Your task to perform on an android device: turn off notifications settings in the gmail app Image 0: 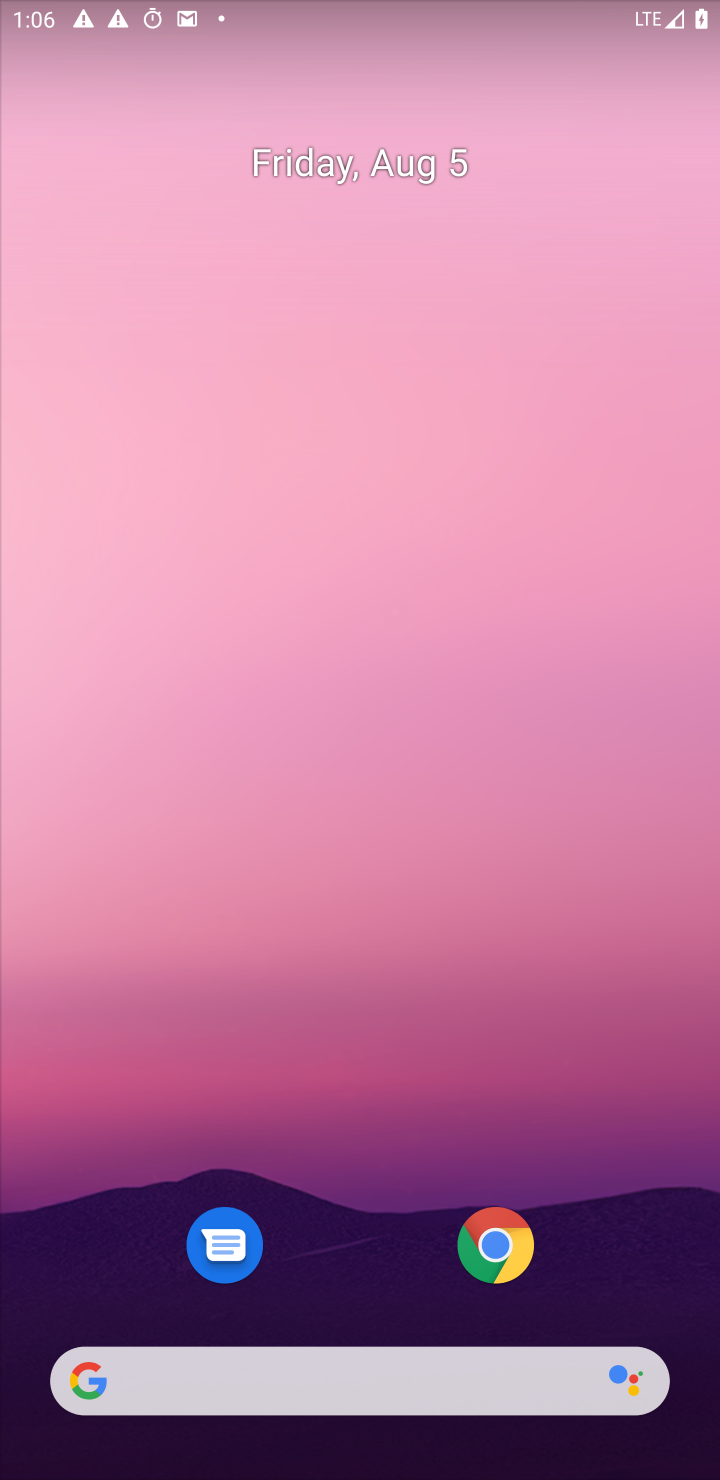
Step 0: drag from (295, 879) to (433, 294)
Your task to perform on an android device: turn off notifications settings in the gmail app Image 1: 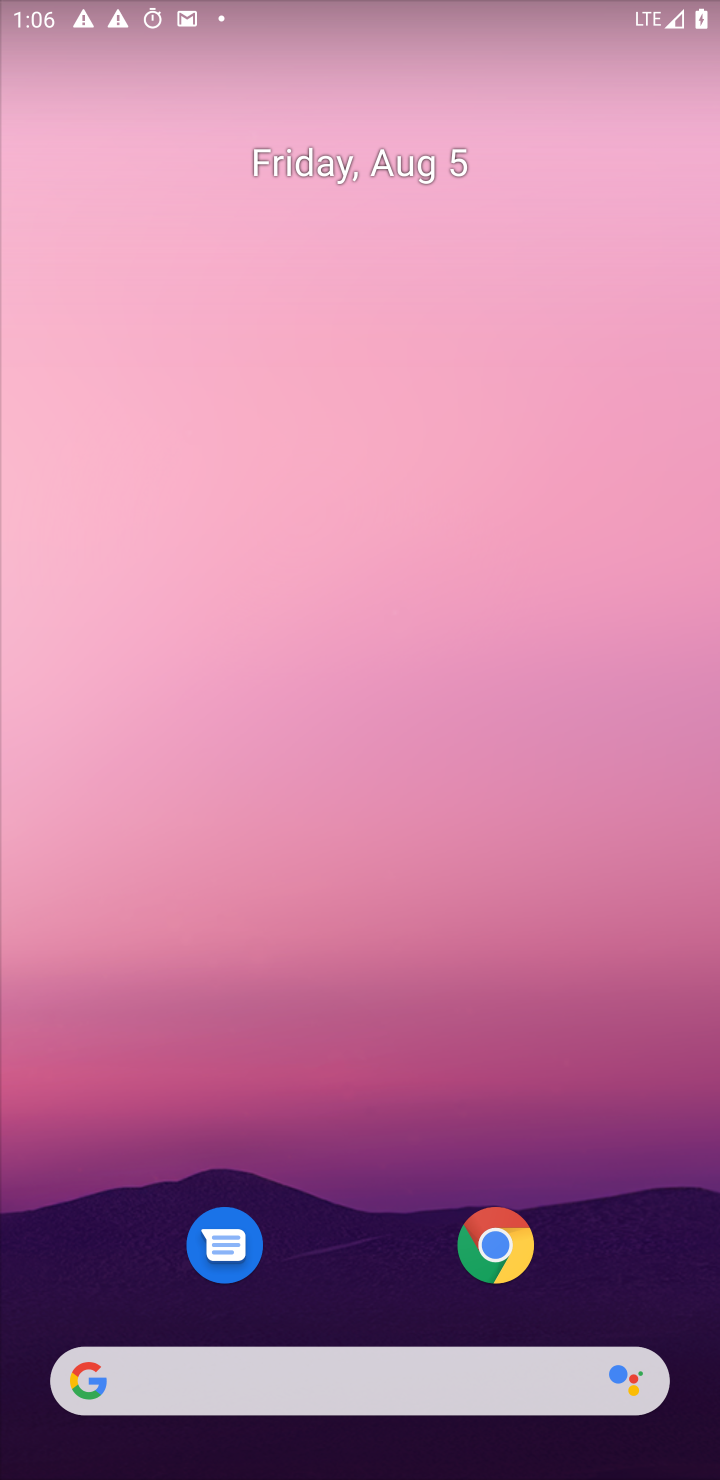
Step 1: drag from (339, 1263) to (416, 225)
Your task to perform on an android device: turn off notifications settings in the gmail app Image 2: 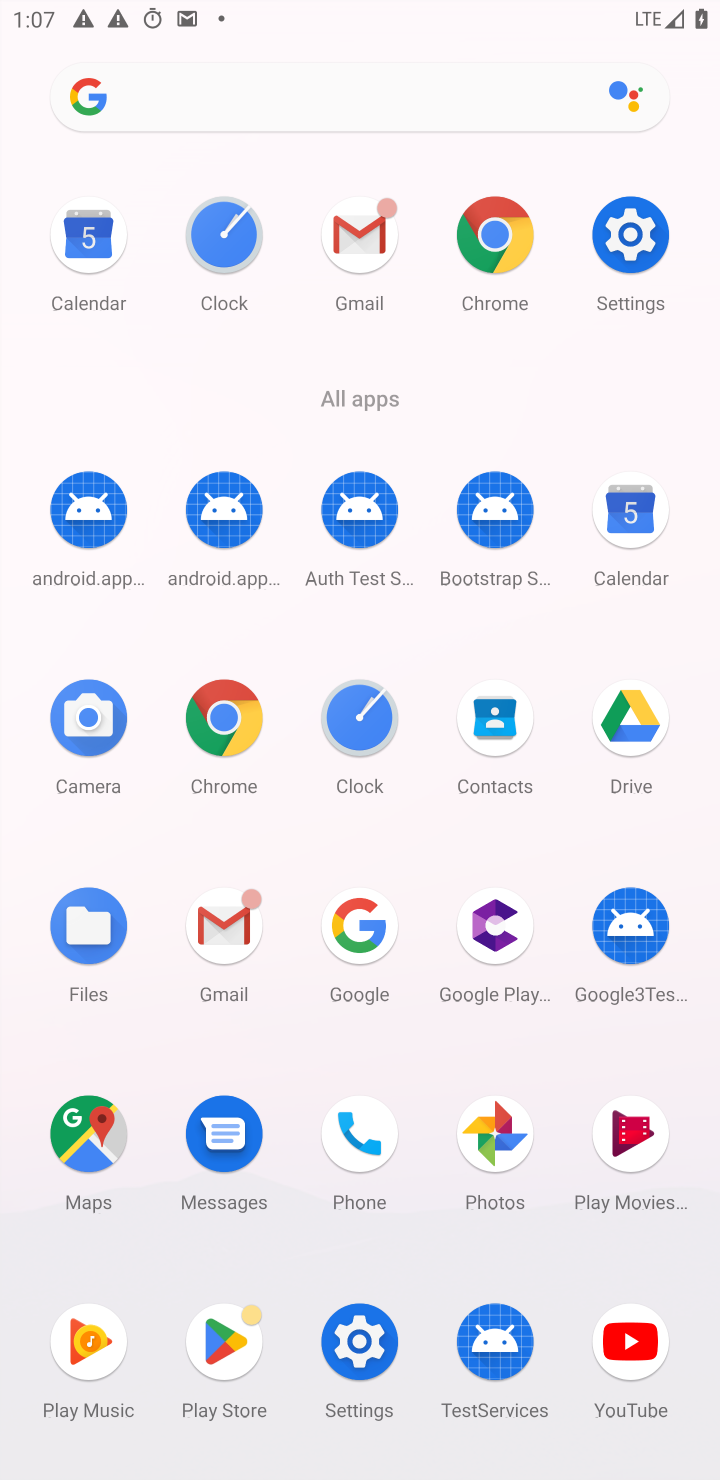
Step 2: click (356, 251)
Your task to perform on an android device: turn off notifications settings in the gmail app Image 3: 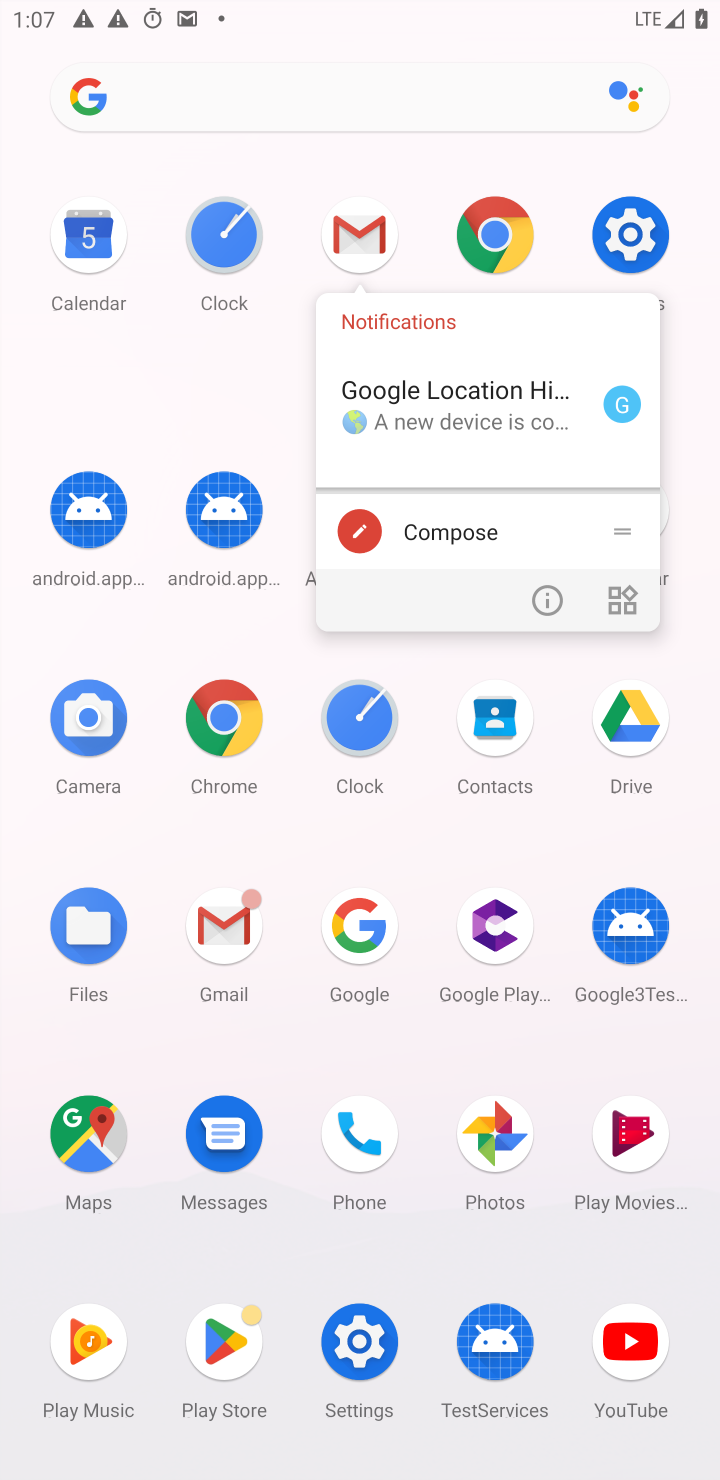
Step 3: click (367, 239)
Your task to perform on an android device: turn off notifications settings in the gmail app Image 4: 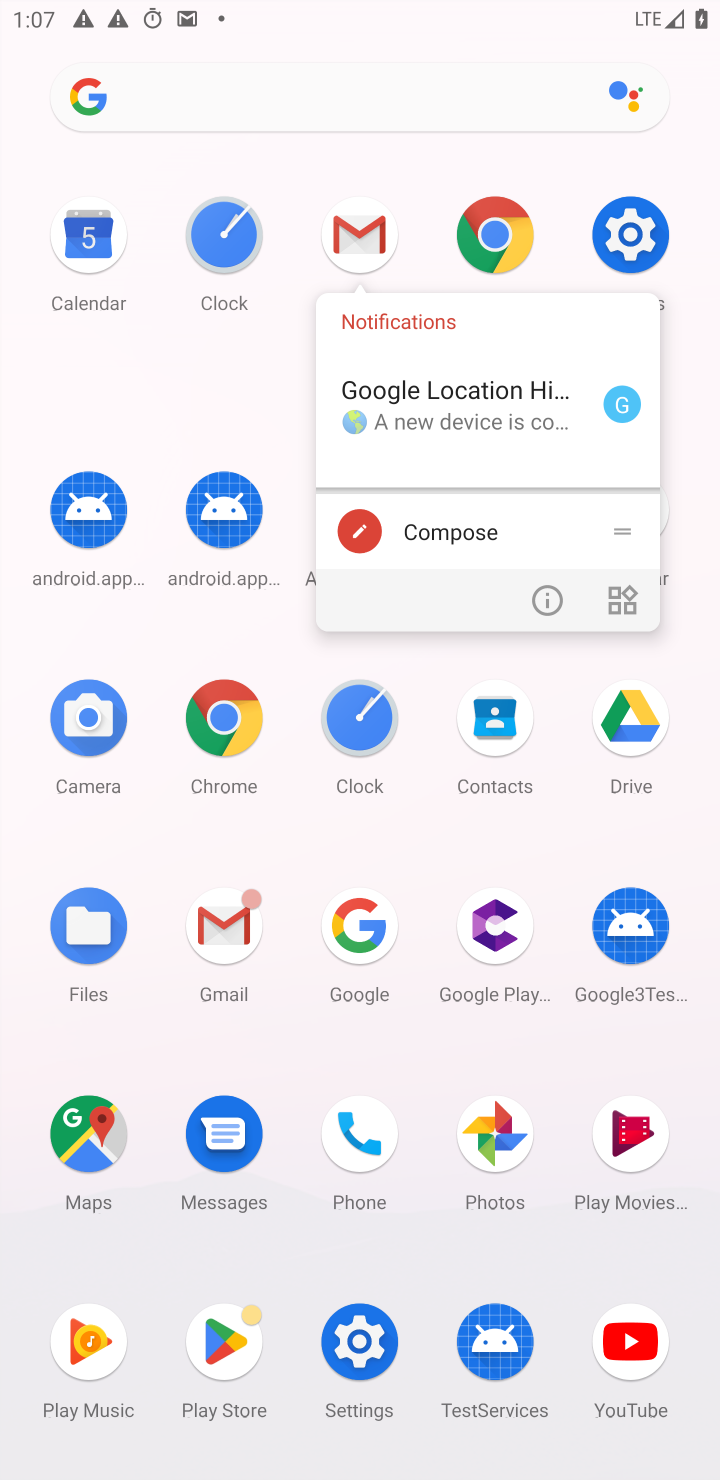
Step 4: click (367, 239)
Your task to perform on an android device: turn off notifications settings in the gmail app Image 5: 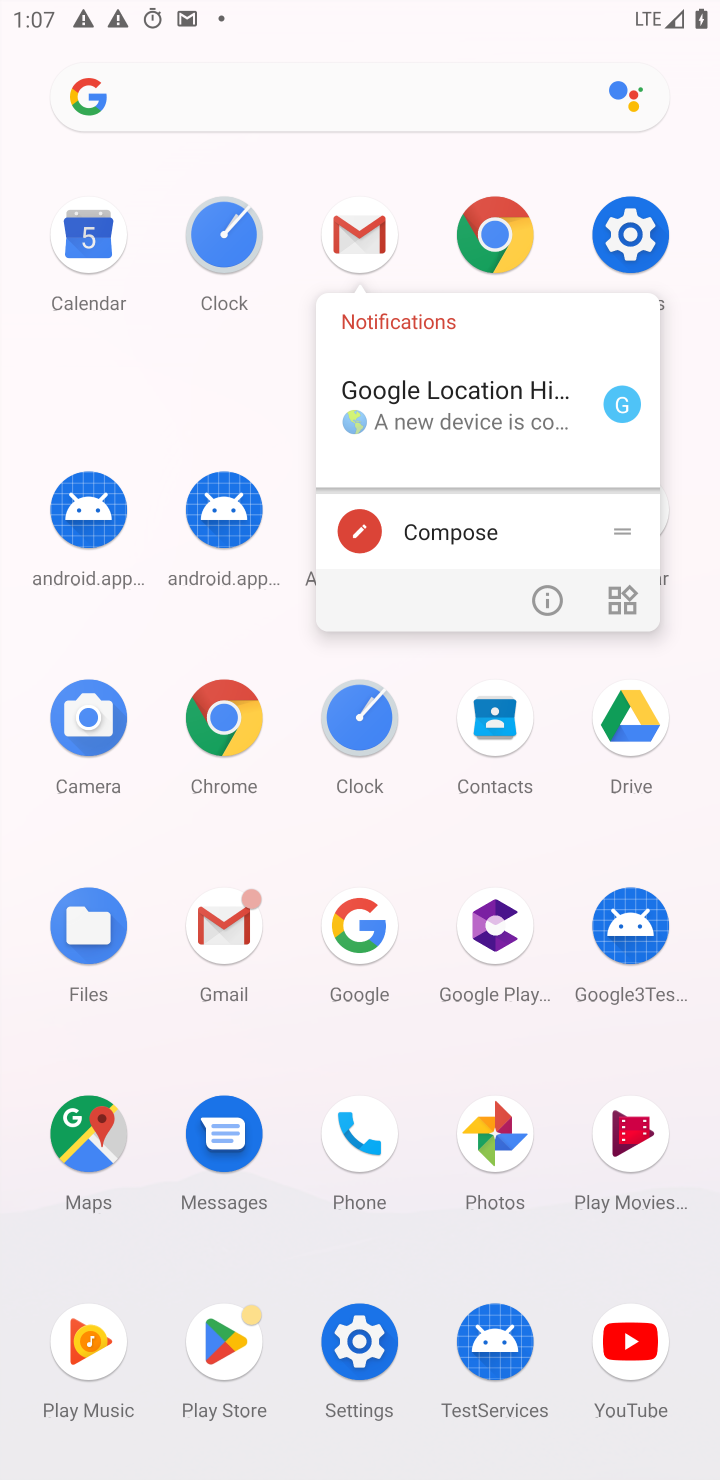
Step 5: click (367, 213)
Your task to perform on an android device: turn off notifications settings in the gmail app Image 6: 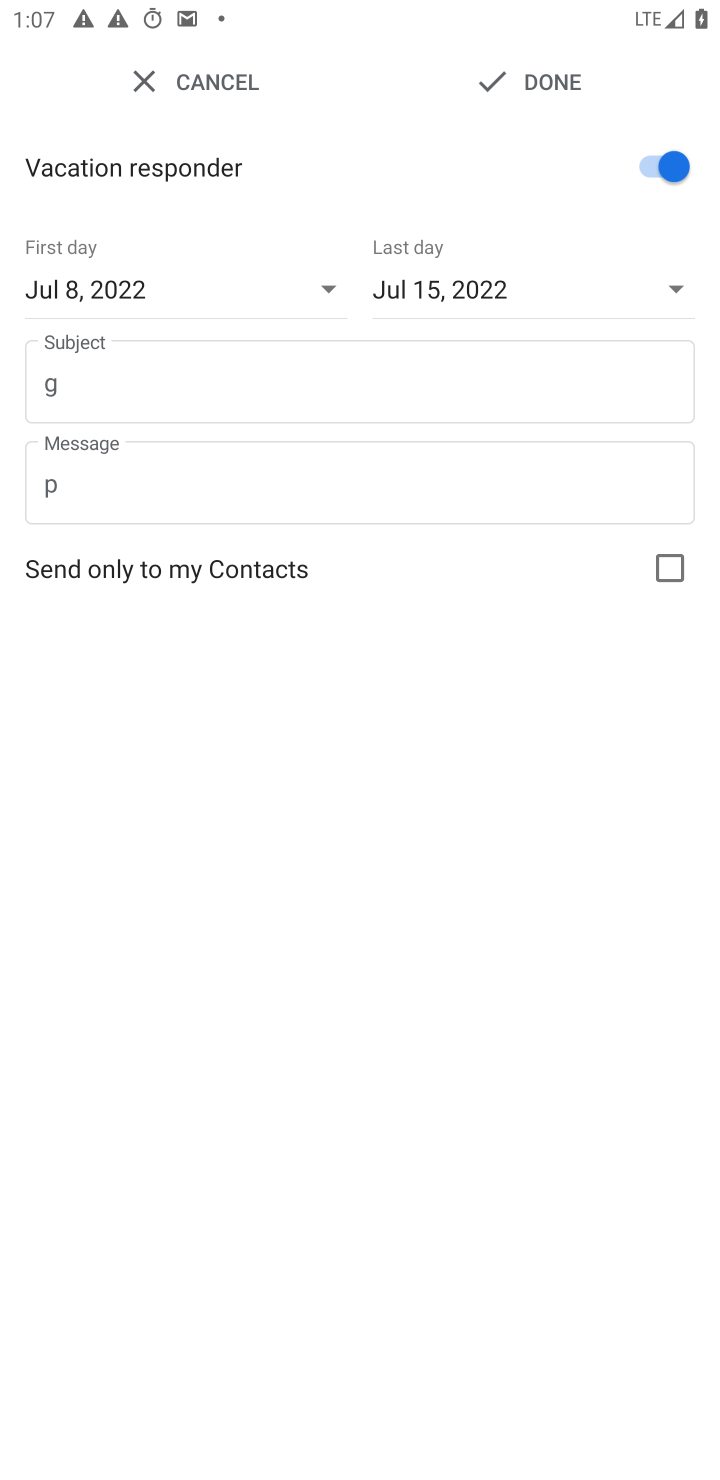
Step 6: click (145, 77)
Your task to perform on an android device: turn off notifications settings in the gmail app Image 7: 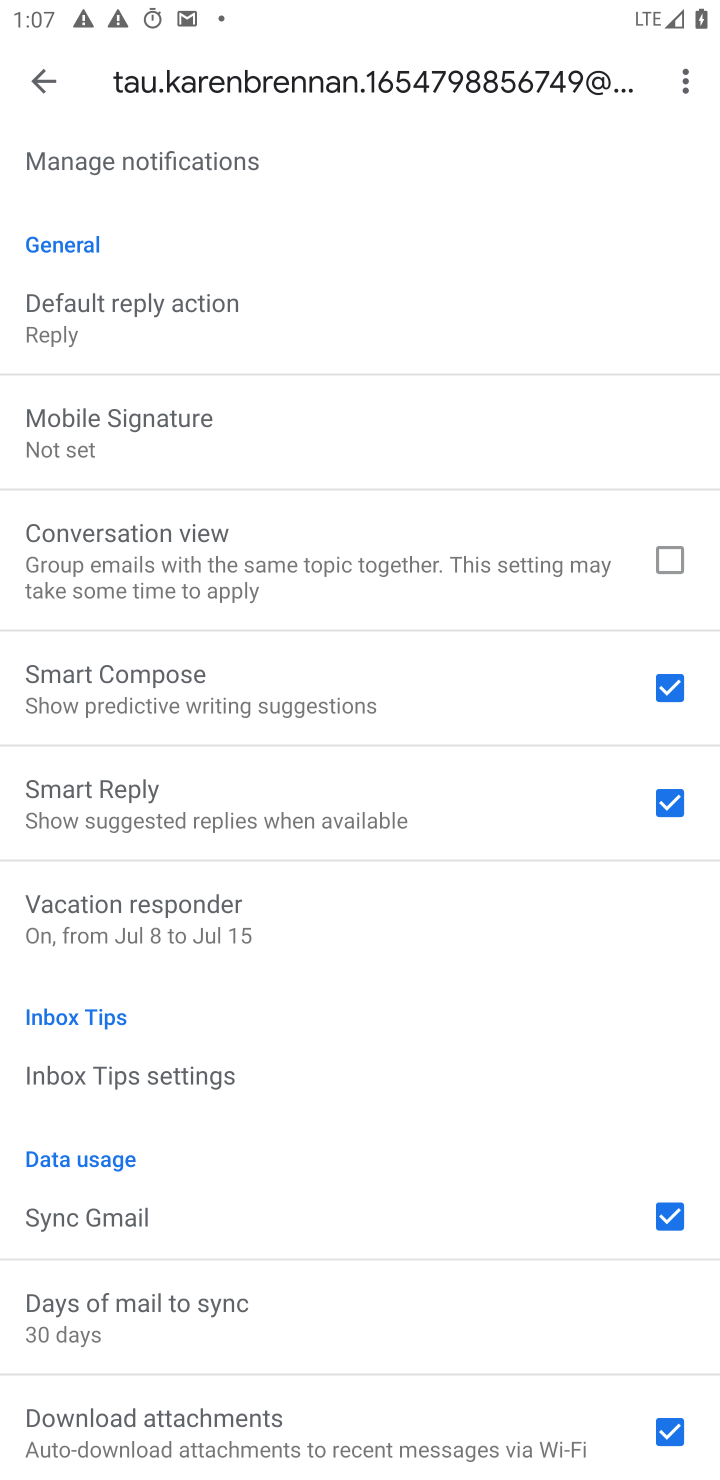
Step 7: drag from (344, 357) to (285, 1060)
Your task to perform on an android device: turn off notifications settings in the gmail app Image 8: 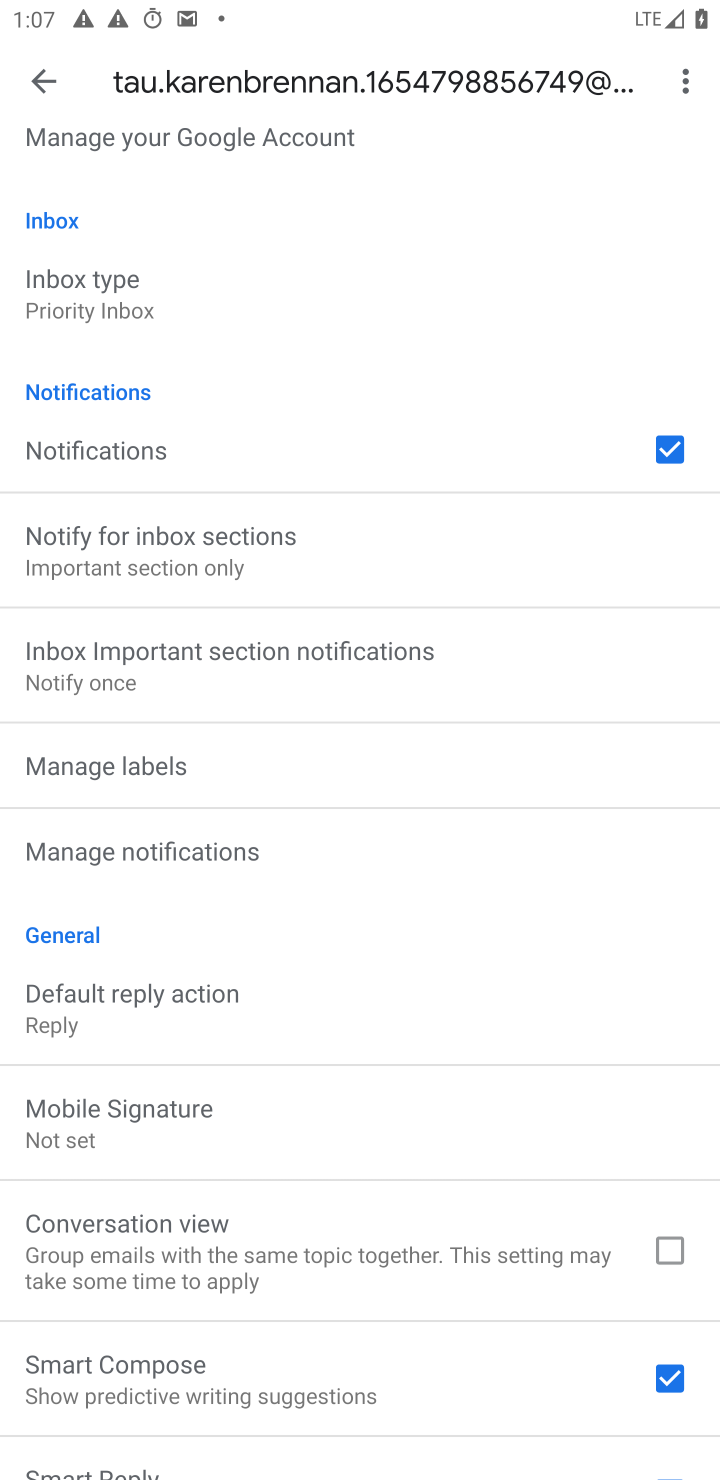
Step 8: click (118, 858)
Your task to perform on an android device: turn off notifications settings in the gmail app Image 9: 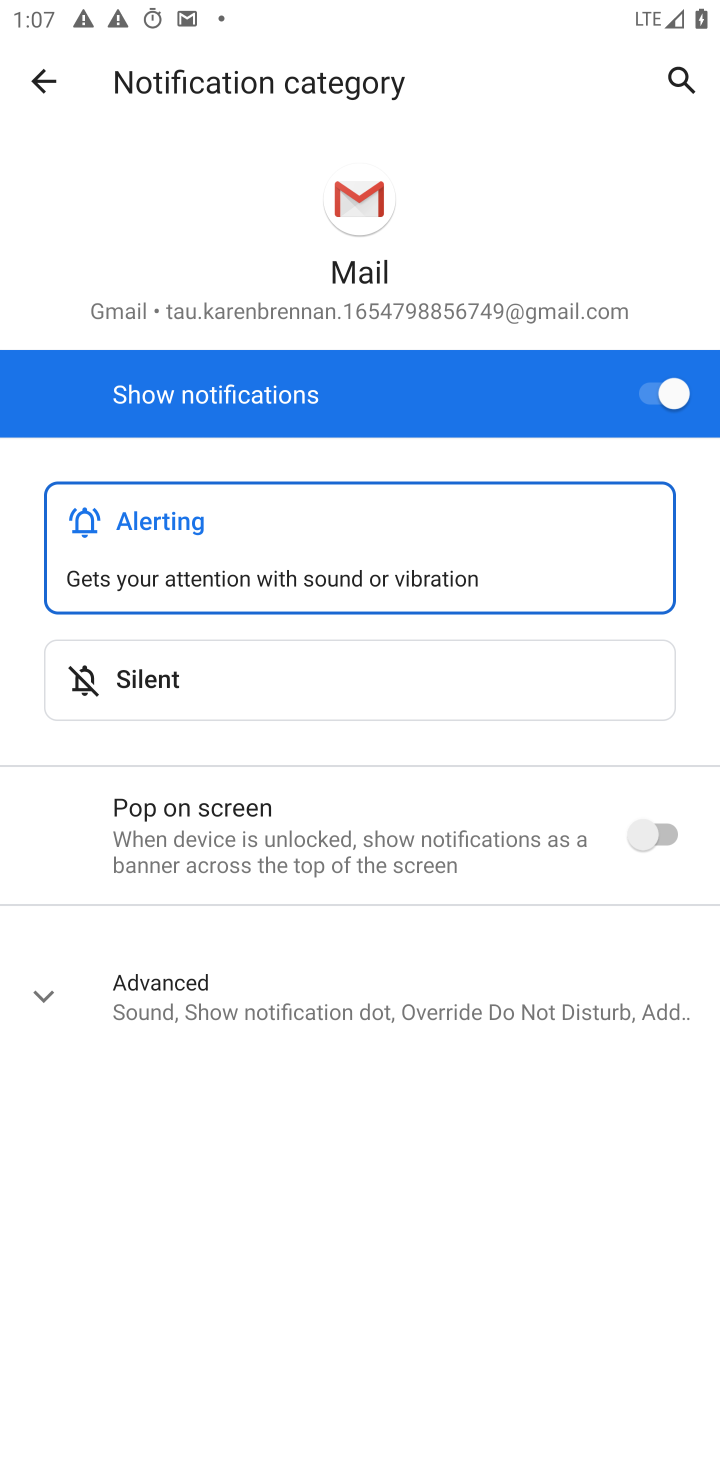
Step 9: click (675, 392)
Your task to perform on an android device: turn off notifications settings in the gmail app Image 10: 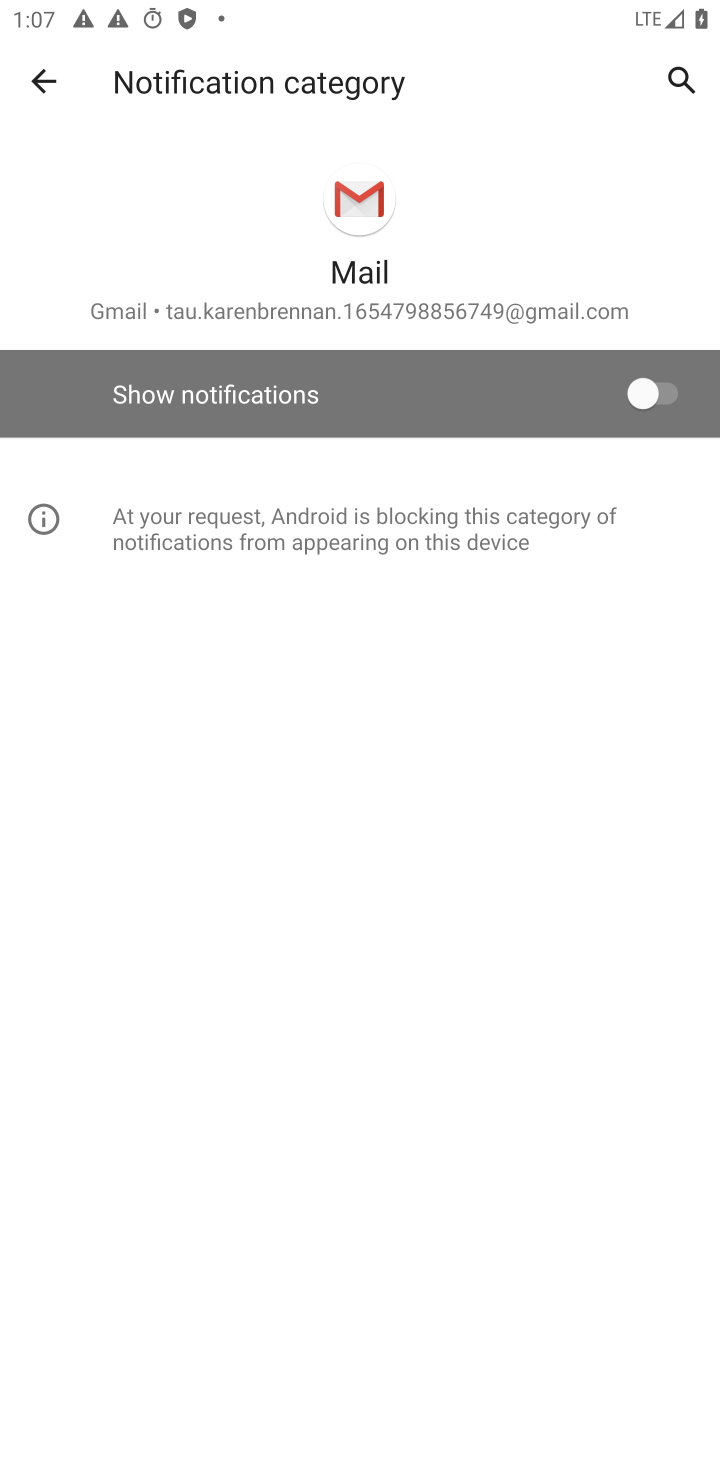
Step 10: task complete